Your task to perform on an android device: turn on notifications settings in the gmail app Image 0: 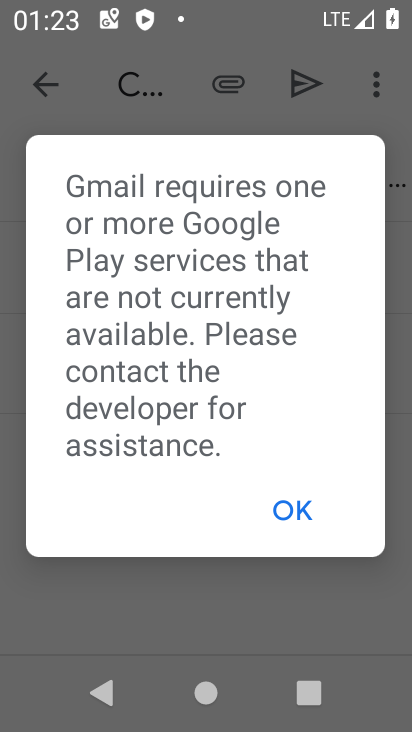
Step 0: press home button
Your task to perform on an android device: turn on notifications settings in the gmail app Image 1: 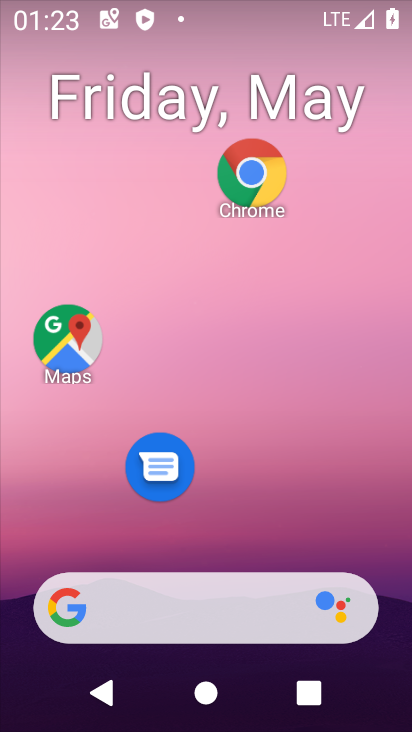
Step 1: drag from (285, 649) to (309, 204)
Your task to perform on an android device: turn on notifications settings in the gmail app Image 2: 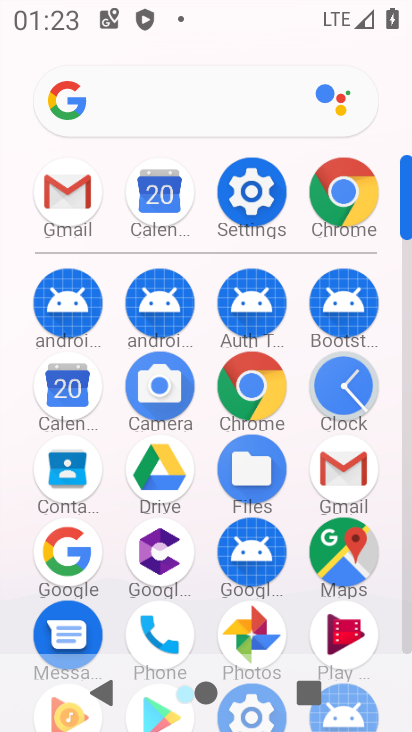
Step 2: click (338, 490)
Your task to perform on an android device: turn on notifications settings in the gmail app Image 3: 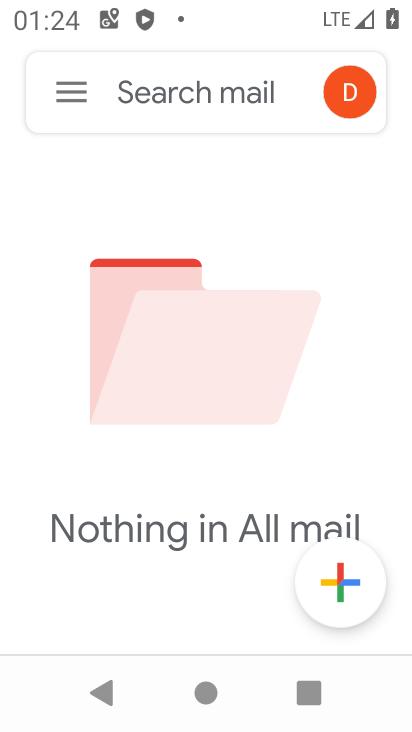
Step 3: click (46, 89)
Your task to perform on an android device: turn on notifications settings in the gmail app Image 4: 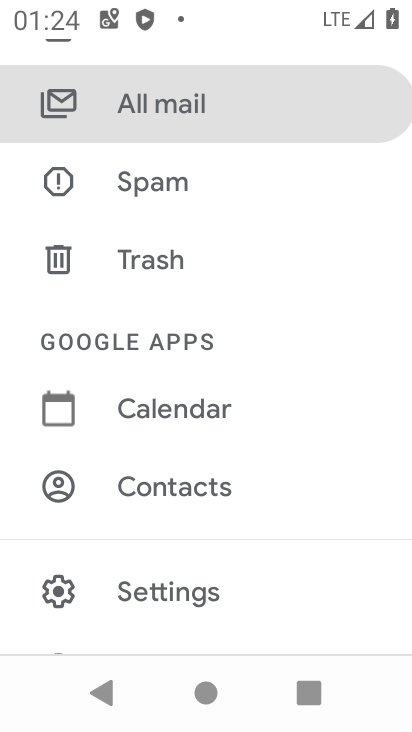
Step 4: click (161, 604)
Your task to perform on an android device: turn on notifications settings in the gmail app Image 5: 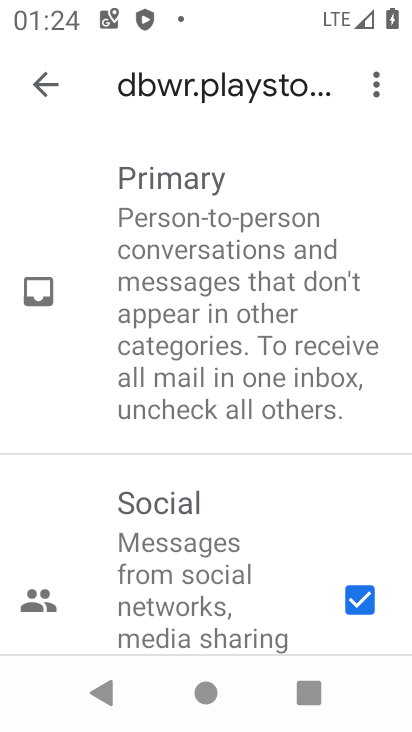
Step 5: click (25, 93)
Your task to perform on an android device: turn on notifications settings in the gmail app Image 6: 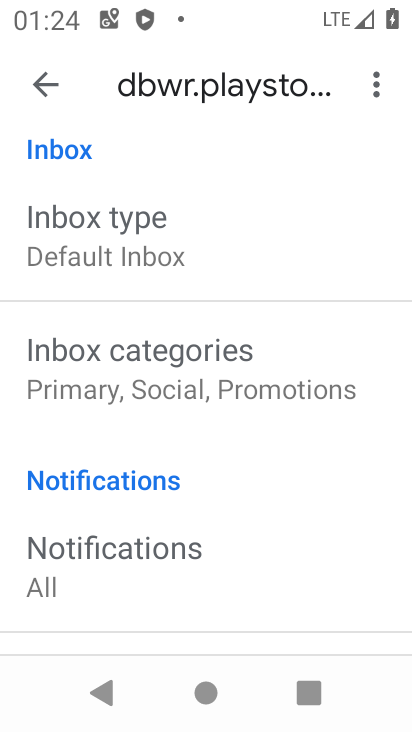
Step 6: drag from (147, 584) to (167, 479)
Your task to perform on an android device: turn on notifications settings in the gmail app Image 7: 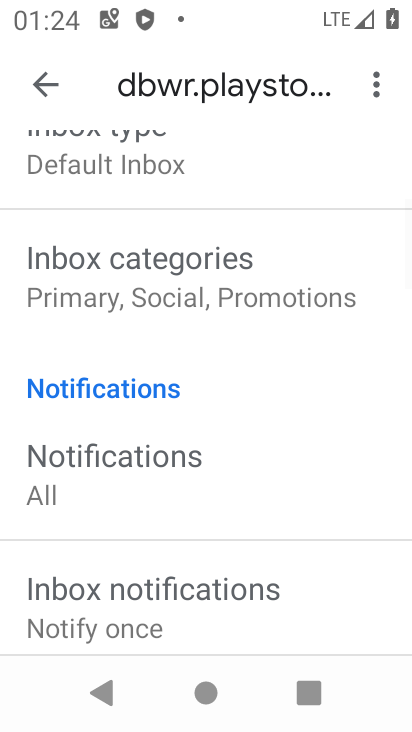
Step 7: click (167, 478)
Your task to perform on an android device: turn on notifications settings in the gmail app Image 8: 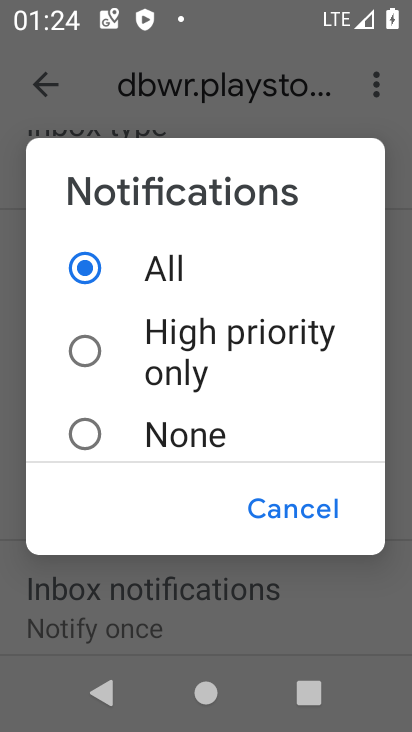
Step 8: task complete